Your task to perform on an android device: Toggle the flashlight Image 0: 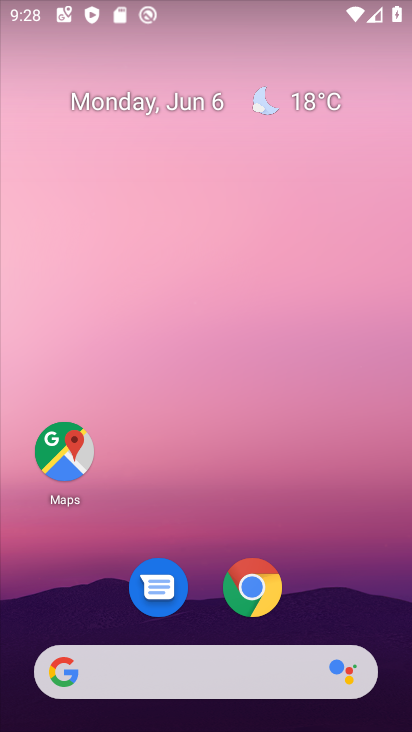
Step 0: drag from (313, 572) to (288, 185)
Your task to perform on an android device: Toggle the flashlight Image 1: 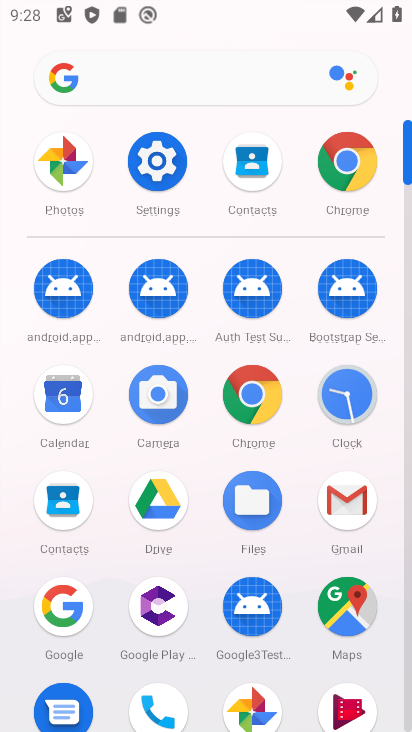
Step 1: click (169, 178)
Your task to perform on an android device: Toggle the flashlight Image 2: 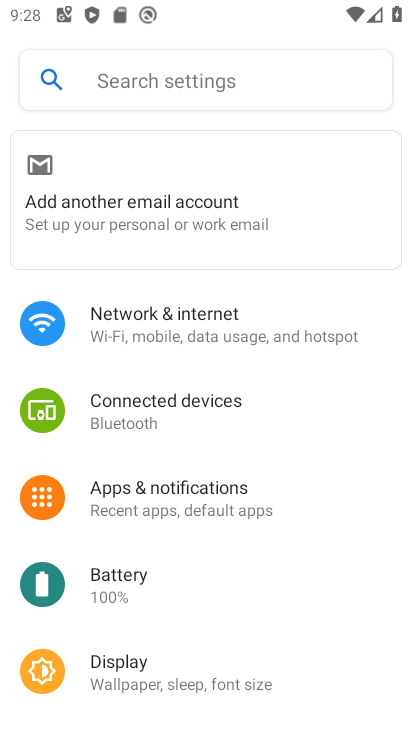
Step 2: click (127, 678)
Your task to perform on an android device: Toggle the flashlight Image 3: 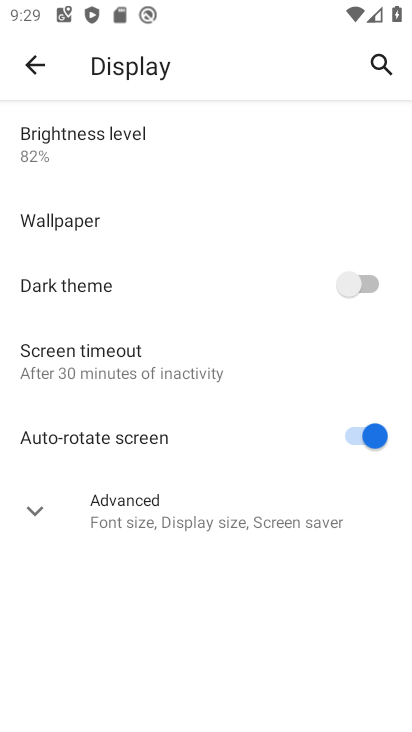
Step 3: task complete